Your task to perform on an android device: empty trash in google photos Image 0: 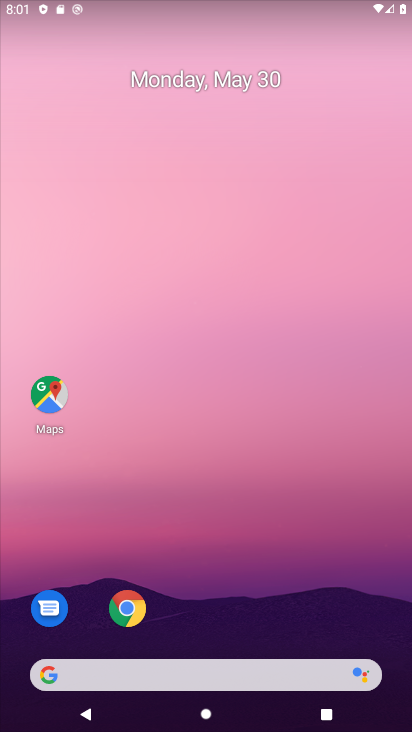
Step 0: drag from (396, 628) to (357, 184)
Your task to perform on an android device: empty trash in google photos Image 1: 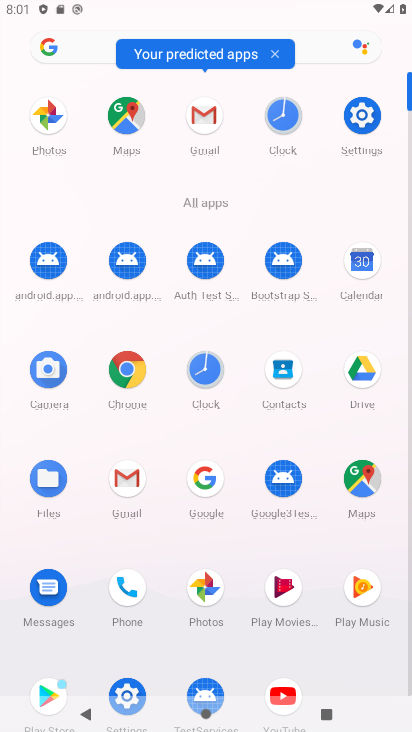
Step 1: click (209, 588)
Your task to perform on an android device: empty trash in google photos Image 2: 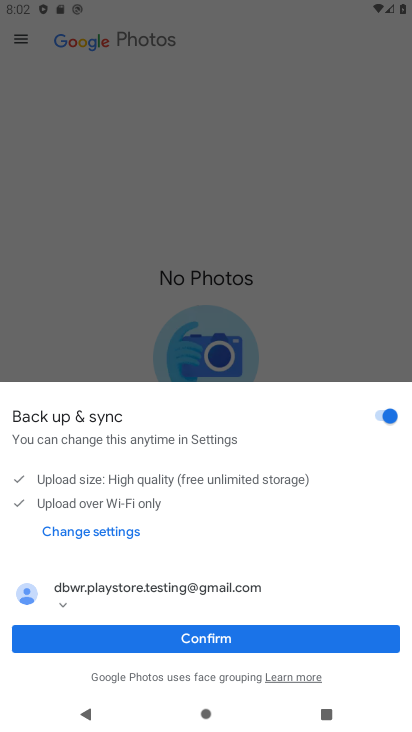
Step 2: click (253, 640)
Your task to perform on an android device: empty trash in google photos Image 3: 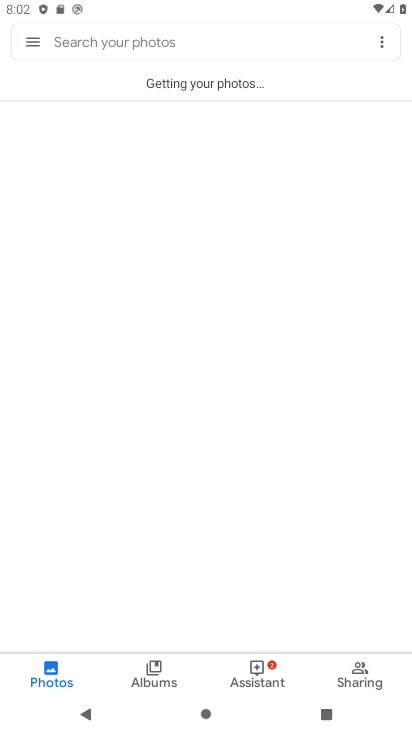
Step 3: click (27, 45)
Your task to perform on an android device: empty trash in google photos Image 4: 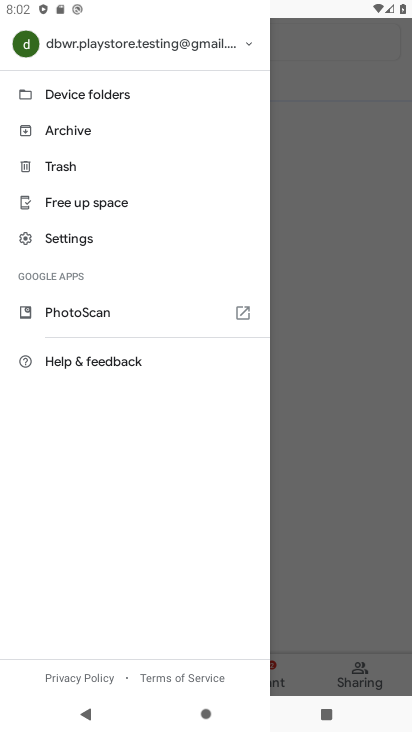
Step 4: click (60, 156)
Your task to perform on an android device: empty trash in google photos Image 5: 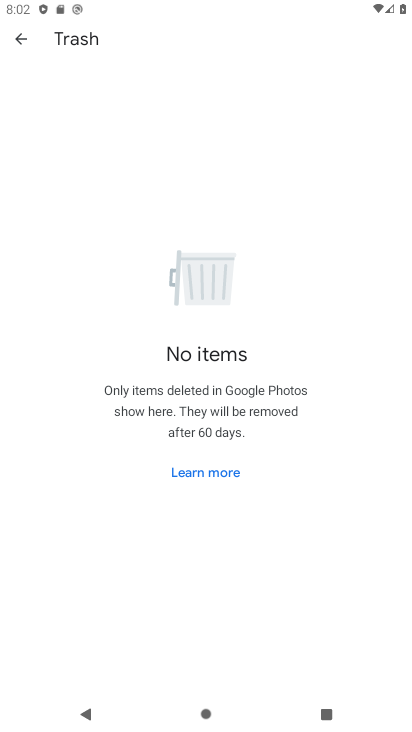
Step 5: task complete